Your task to perform on an android device: change notifications settings Image 0: 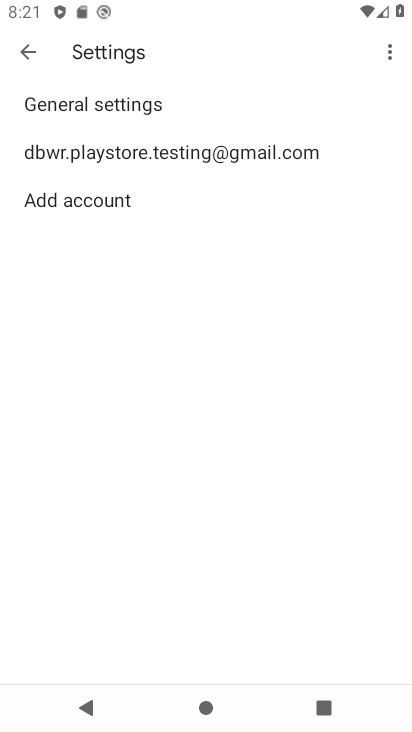
Step 0: press home button
Your task to perform on an android device: change notifications settings Image 1: 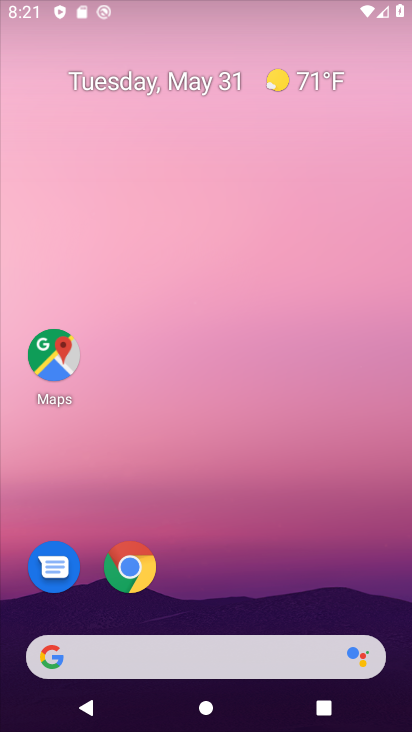
Step 1: drag from (102, 634) to (192, 159)
Your task to perform on an android device: change notifications settings Image 2: 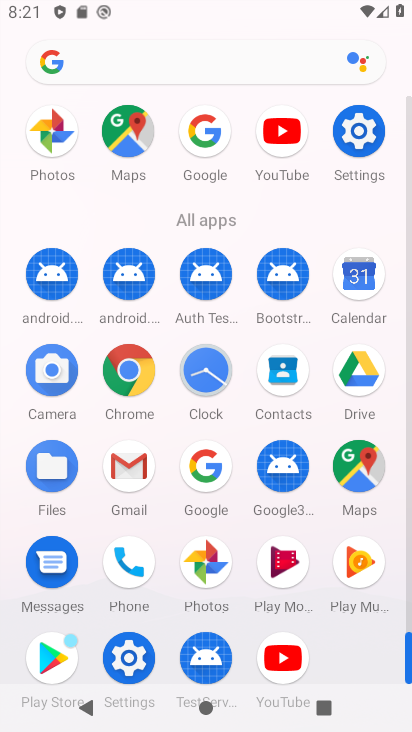
Step 2: click (368, 137)
Your task to perform on an android device: change notifications settings Image 3: 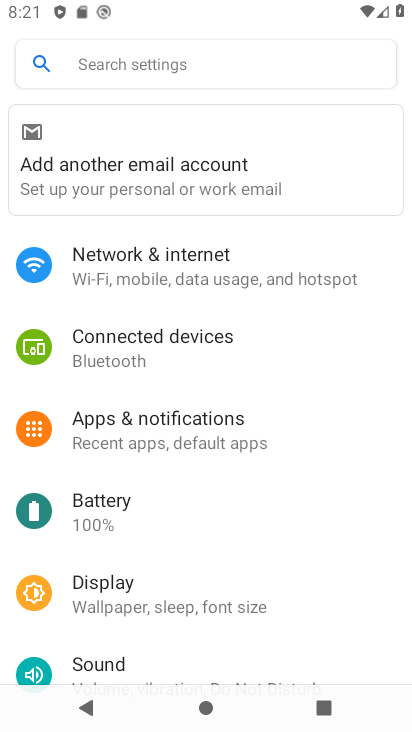
Step 3: click (200, 434)
Your task to perform on an android device: change notifications settings Image 4: 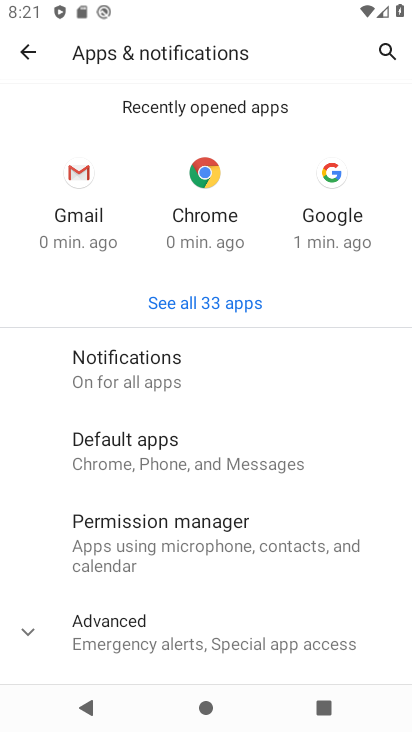
Step 4: click (136, 632)
Your task to perform on an android device: change notifications settings Image 5: 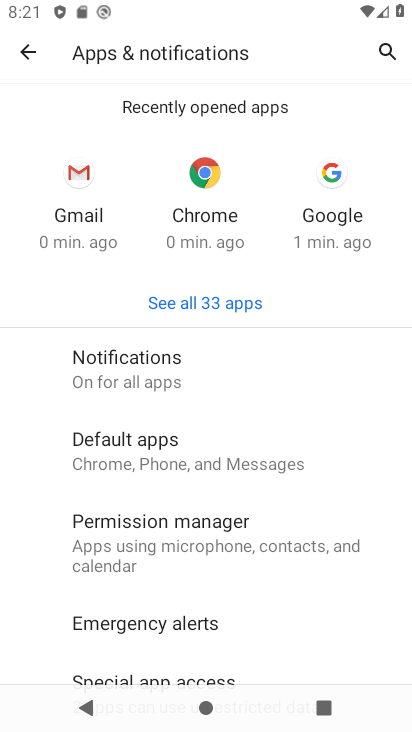
Step 5: click (129, 371)
Your task to perform on an android device: change notifications settings Image 6: 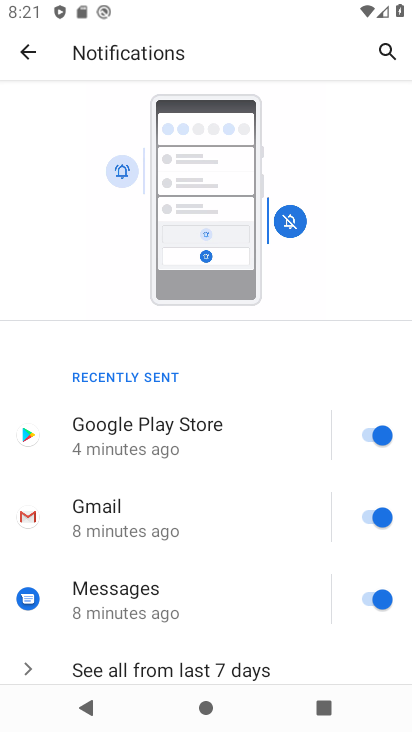
Step 6: click (371, 431)
Your task to perform on an android device: change notifications settings Image 7: 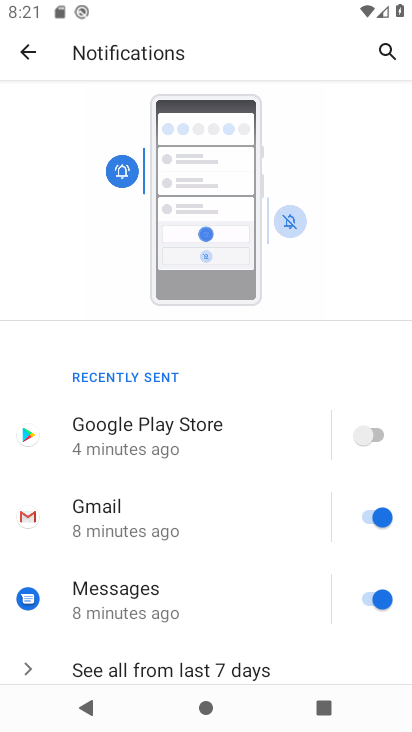
Step 7: click (372, 515)
Your task to perform on an android device: change notifications settings Image 8: 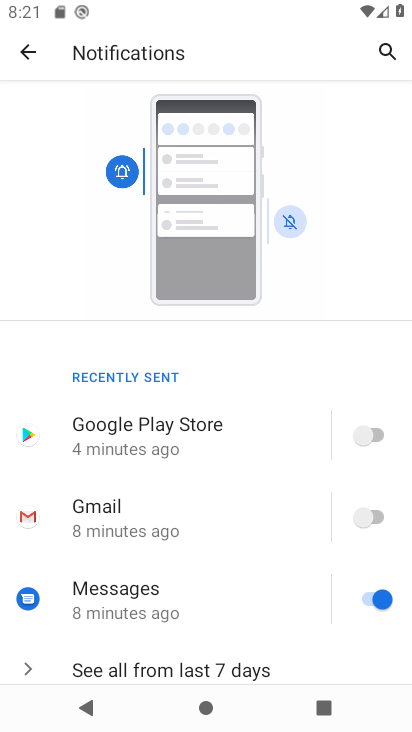
Step 8: click (370, 597)
Your task to perform on an android device: change notifications settings Image 9: 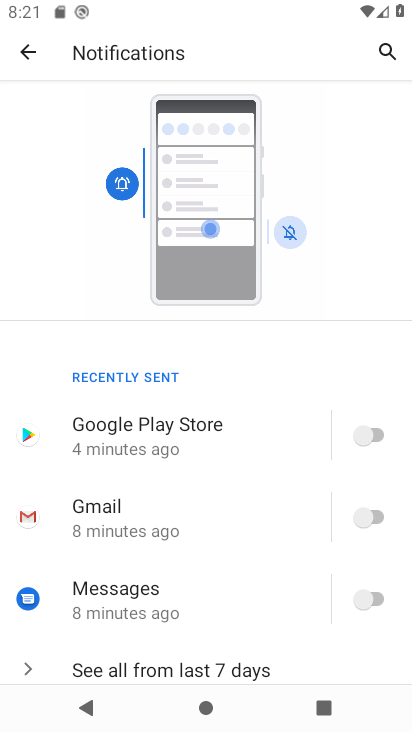
Step 9: task complete